Your task to perform on an android device: move a message to another label in the gmail app Image 0: 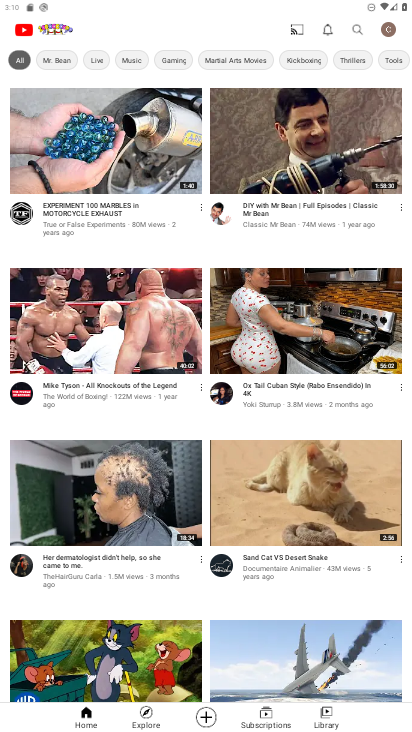
Step 0: press home button
Your task to perform on an android device: move a message to another label in the gmail app Image 1: 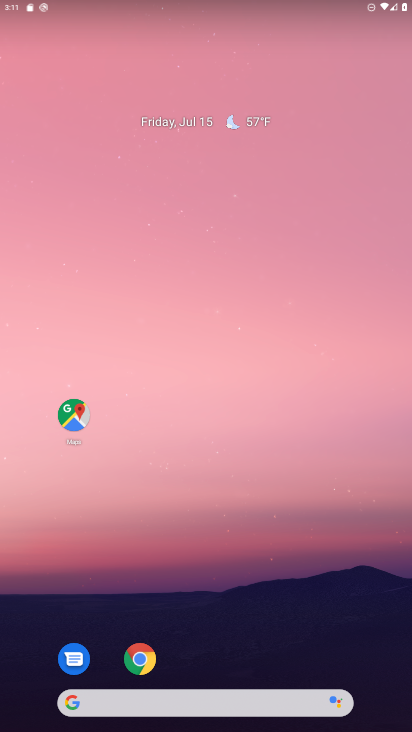
Step 1: drag from (224, 630) to (238, 103)
Your task to perform on an android device: move a message to another label in the gmail app Image 2: 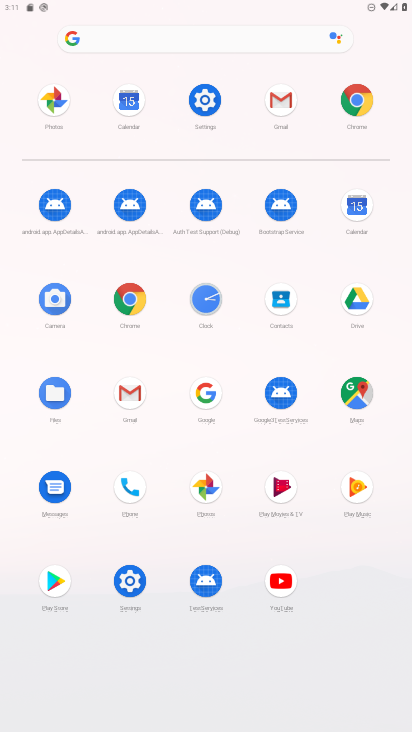
Step 2: click (134, 407)
Your task to perform on an android device: move a message to another label in the gmail app Image 3: 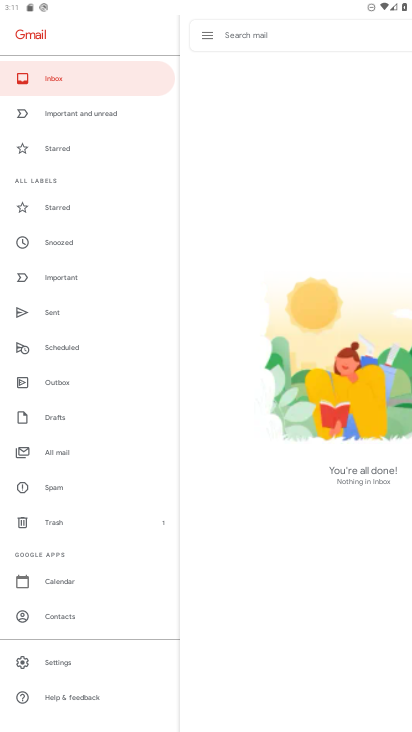
Step 3: task complete